Your task to perform on an android device: open app "Grab" (install if not already installed) Image 0: 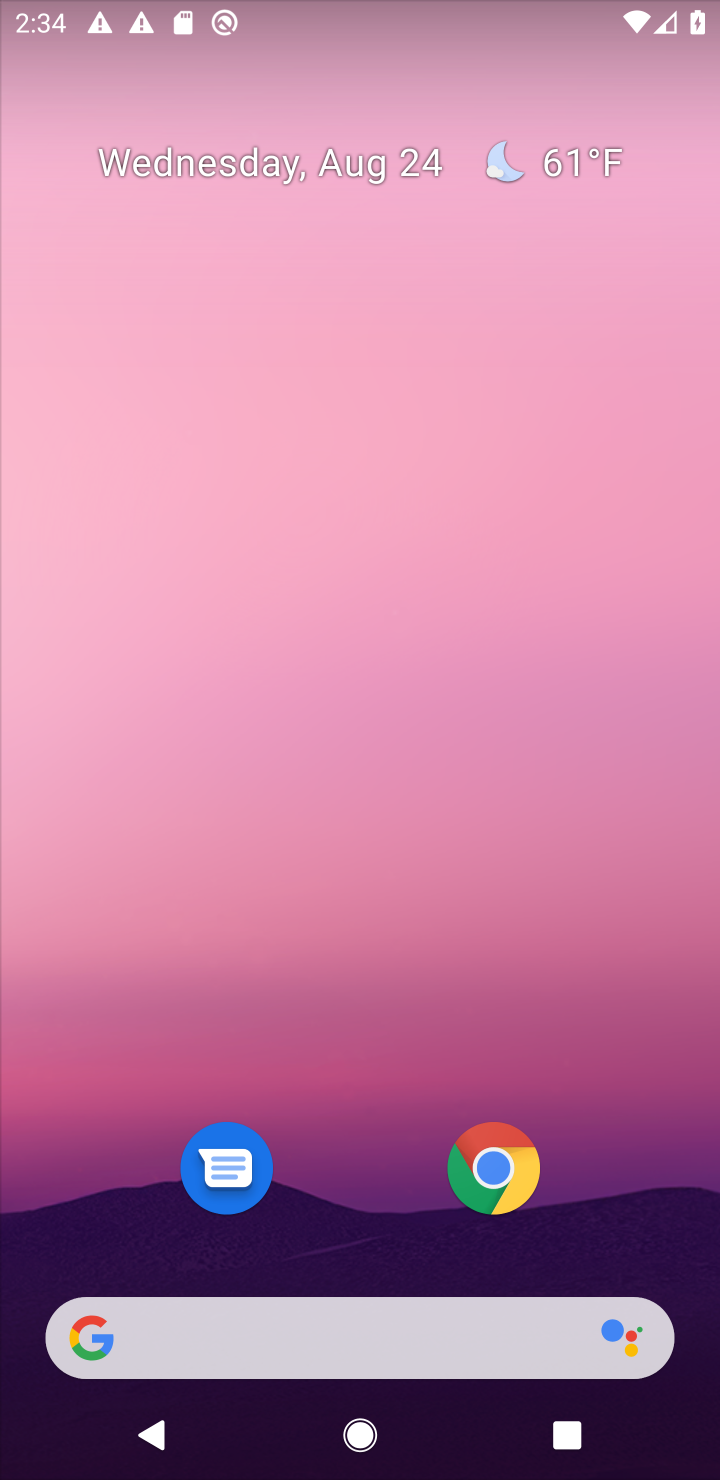
Step 0: drag from (652, 1056) to (594, 214)
Your task to perform on an android device: open app "Grab" (install if not already installed) Image 1: 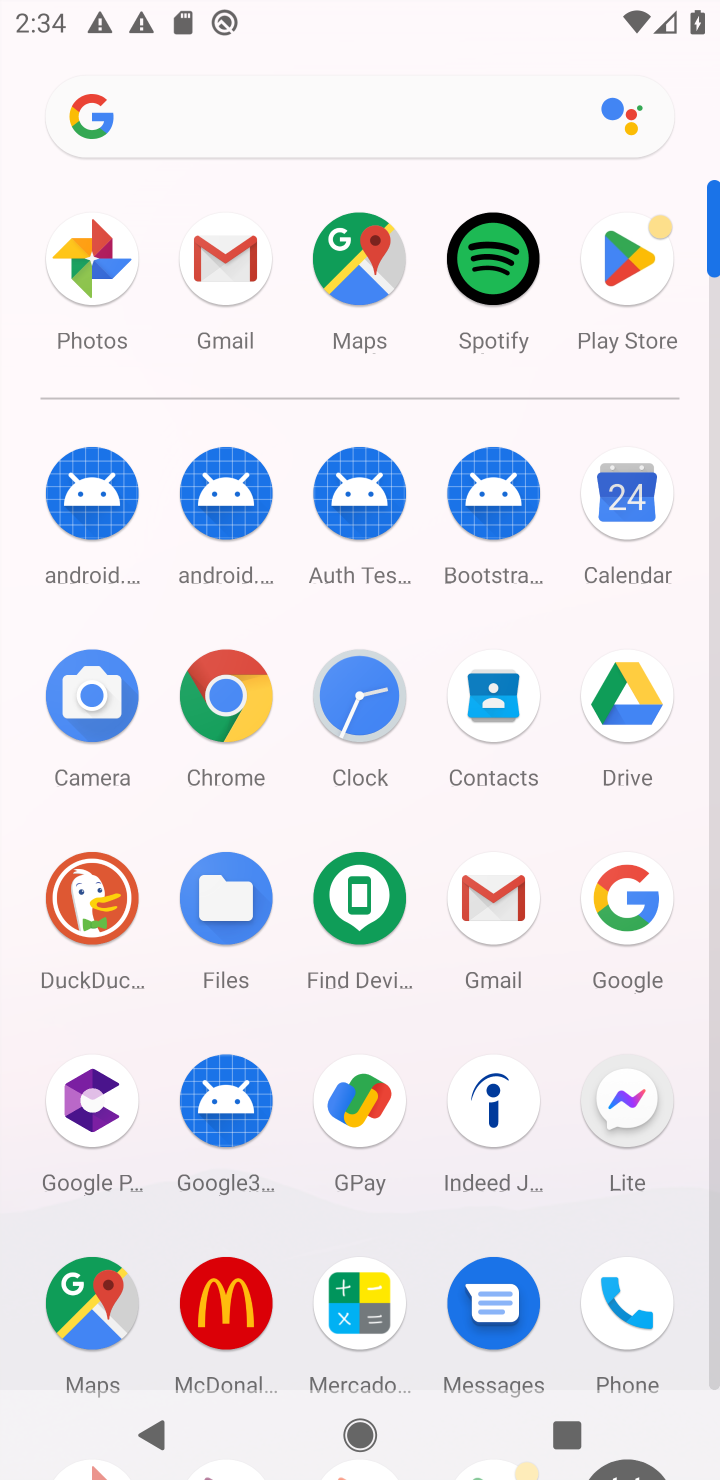
Step 1: click (717, 1325)
Your task to perform on an android device: open app "Grab" (install if not already installed) Image 2: 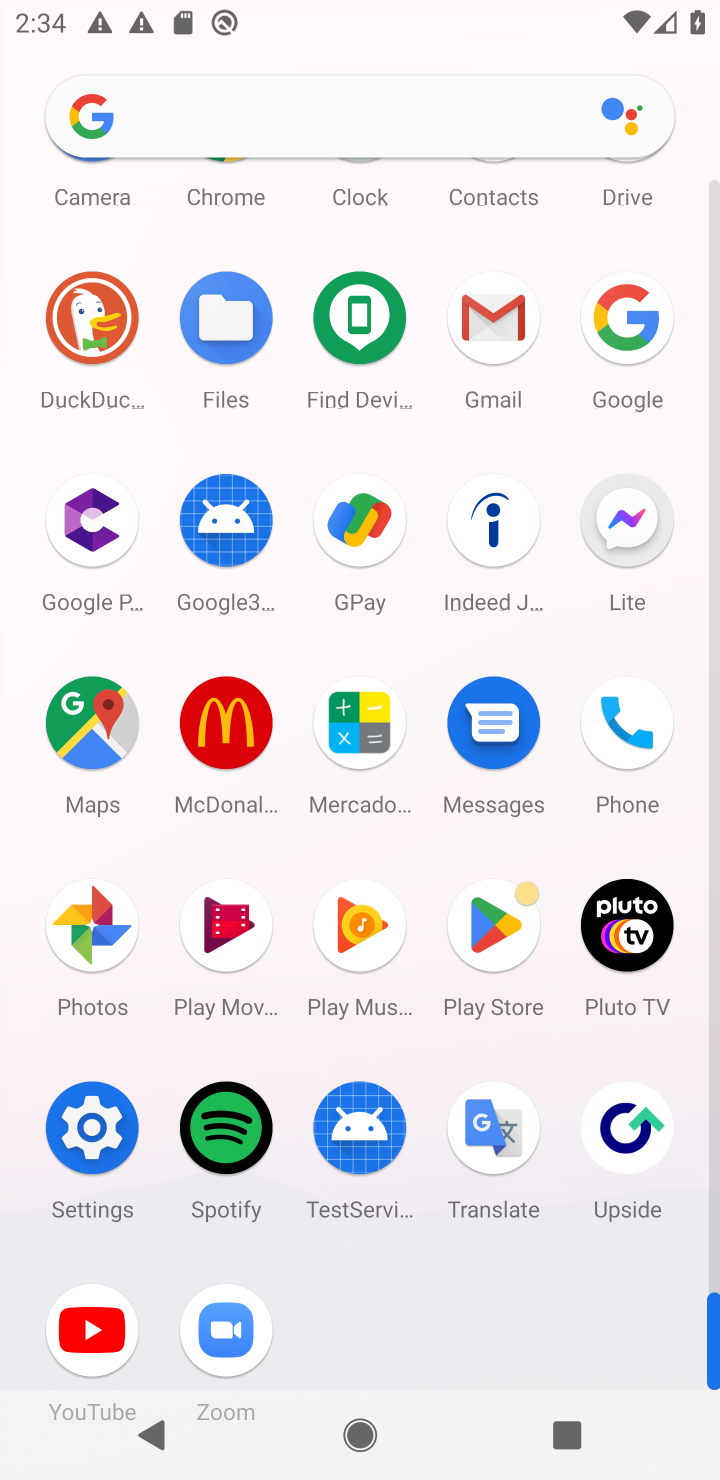
Step 2: click (500, 918)
Your task to perform on an android device: open app "Grab" (install if not already installed) Image 3: 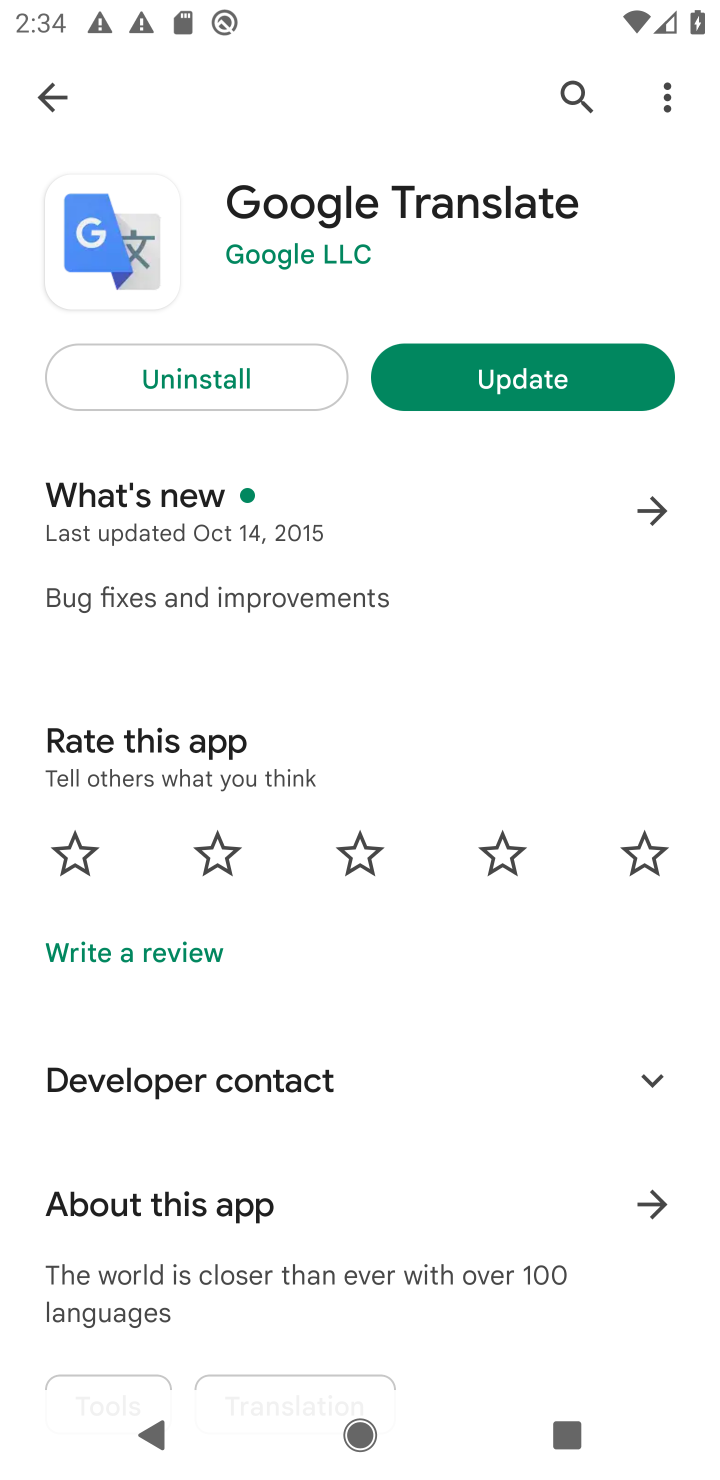
Step 3: click (570, 93)
Your task to perform on an android device: open app "Grab" (install if not already installed) Image 4: 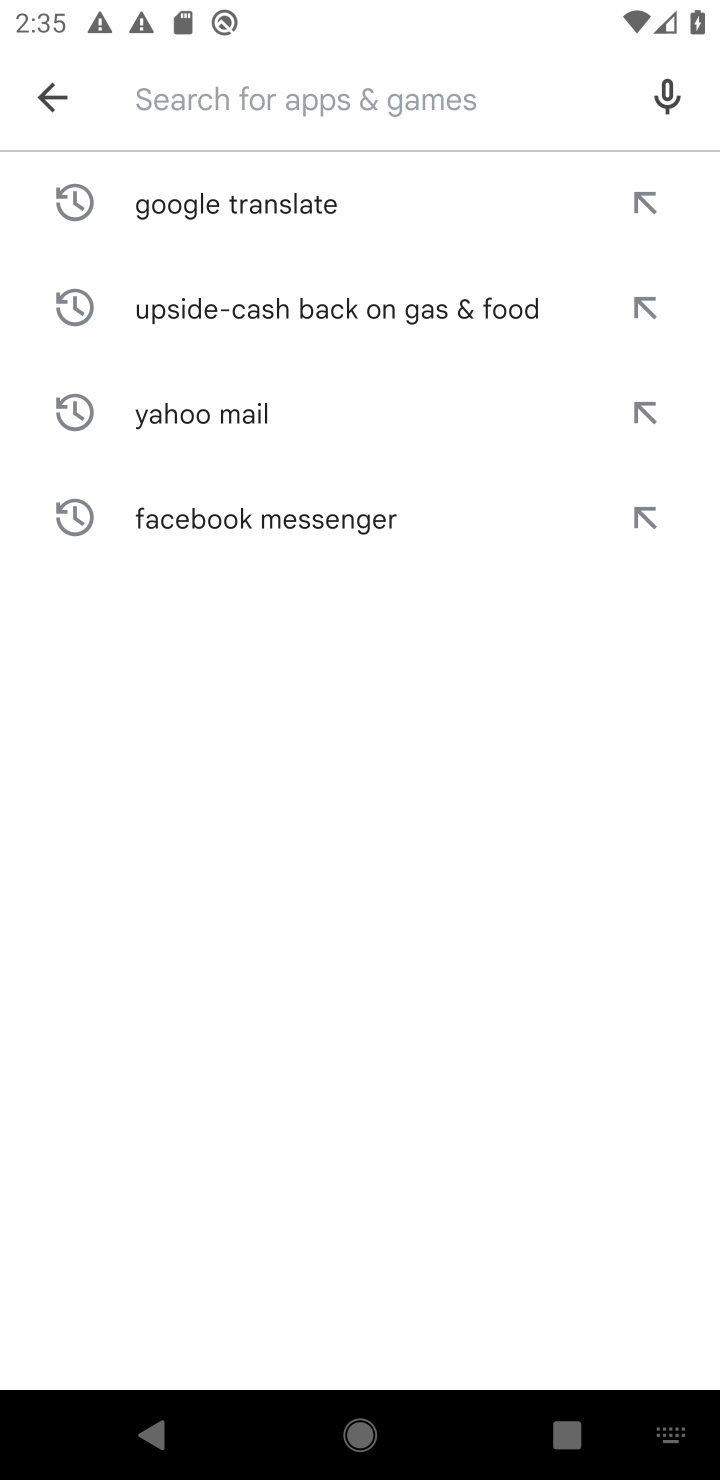
Step 4: type "Grab"
Your task to perform on an android device: open app "Grab" (install if not already installed) Image 5: 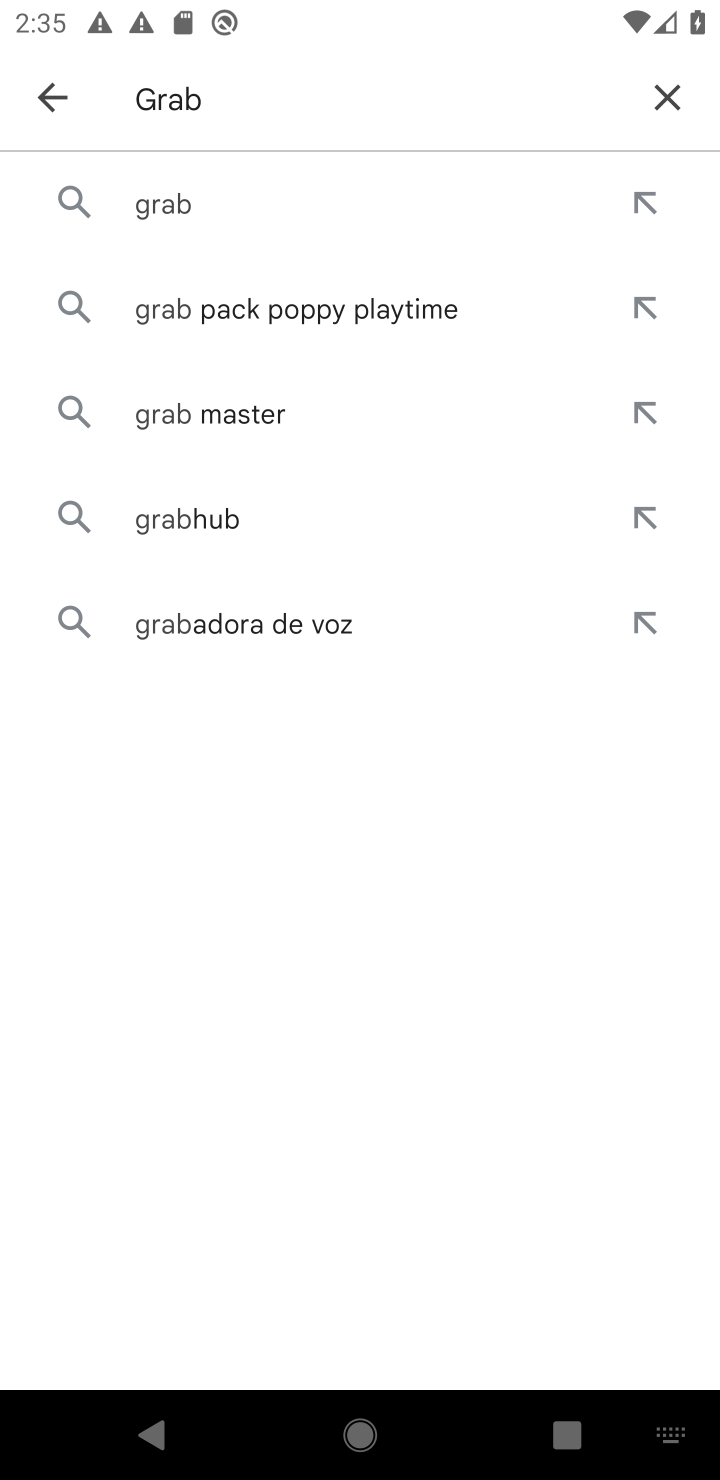
Step 5: click (171, 188)
Your task to perform on an android device: open app "Grab" (install if not already installed) Image 6: 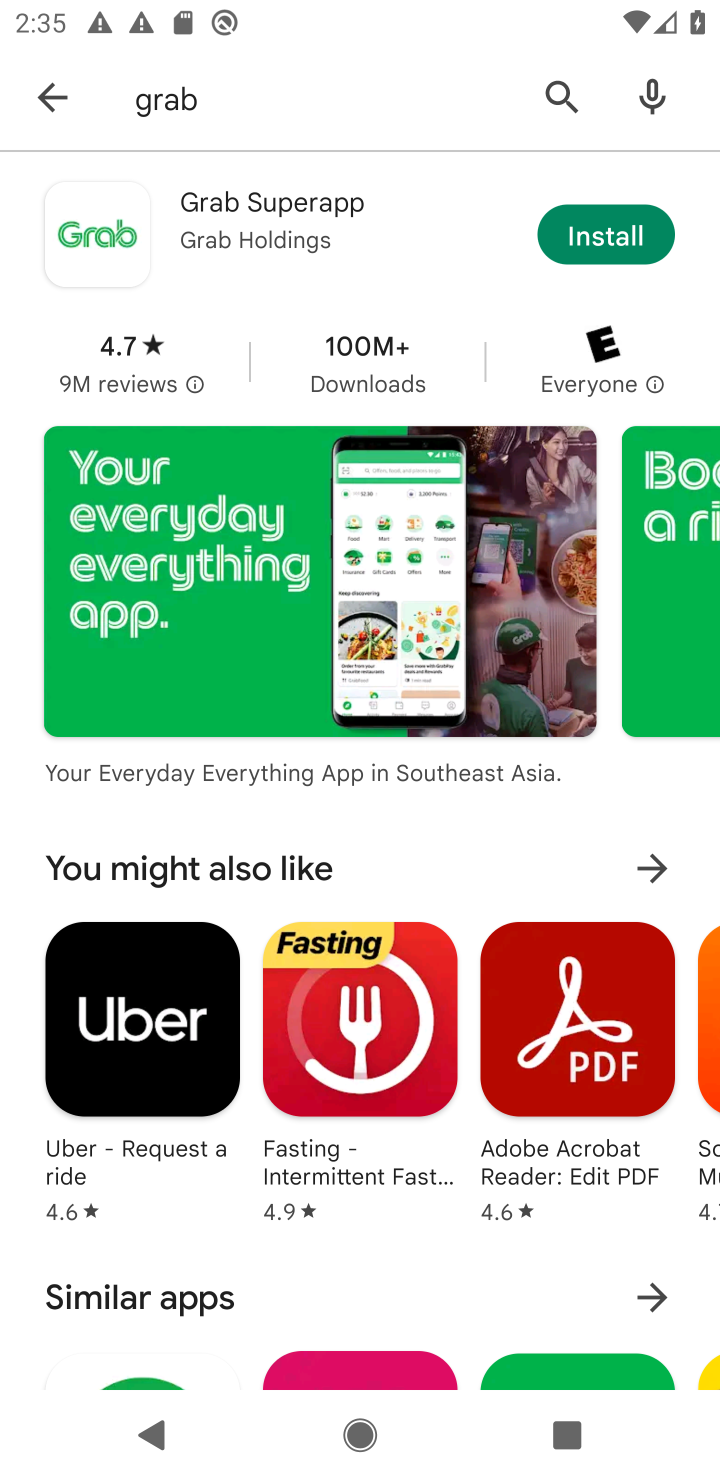
Step 6: click (232, 197)
Your task to perform on an android device: open app "Grab" (install if not already installed) Image 7: 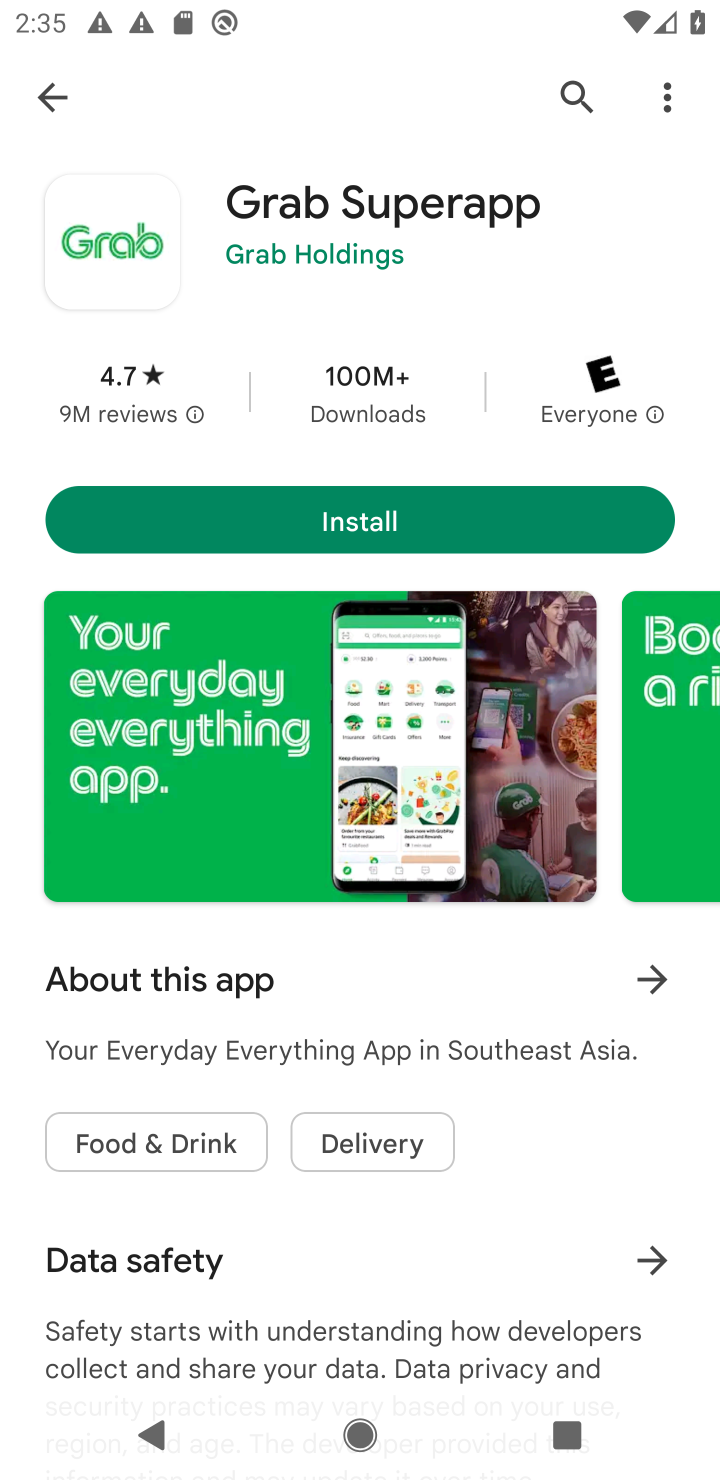
Step 7: click (348, 513)
Your task to perform on an android device: open app "Grab" (install if not already installed) Image 8: 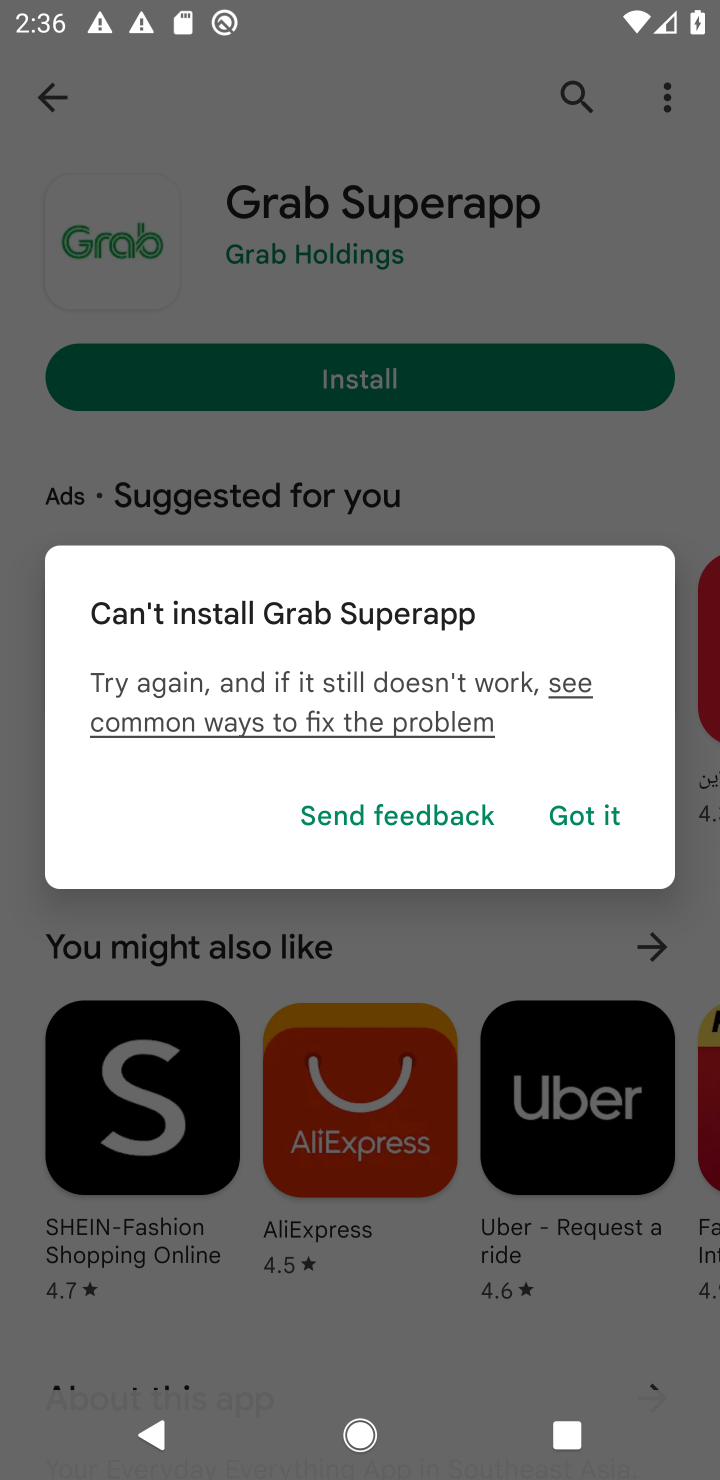
Step 8: click (600, 815)
Your task to perform on an android device: open app "Grab" (install if not already installed) Image 9: 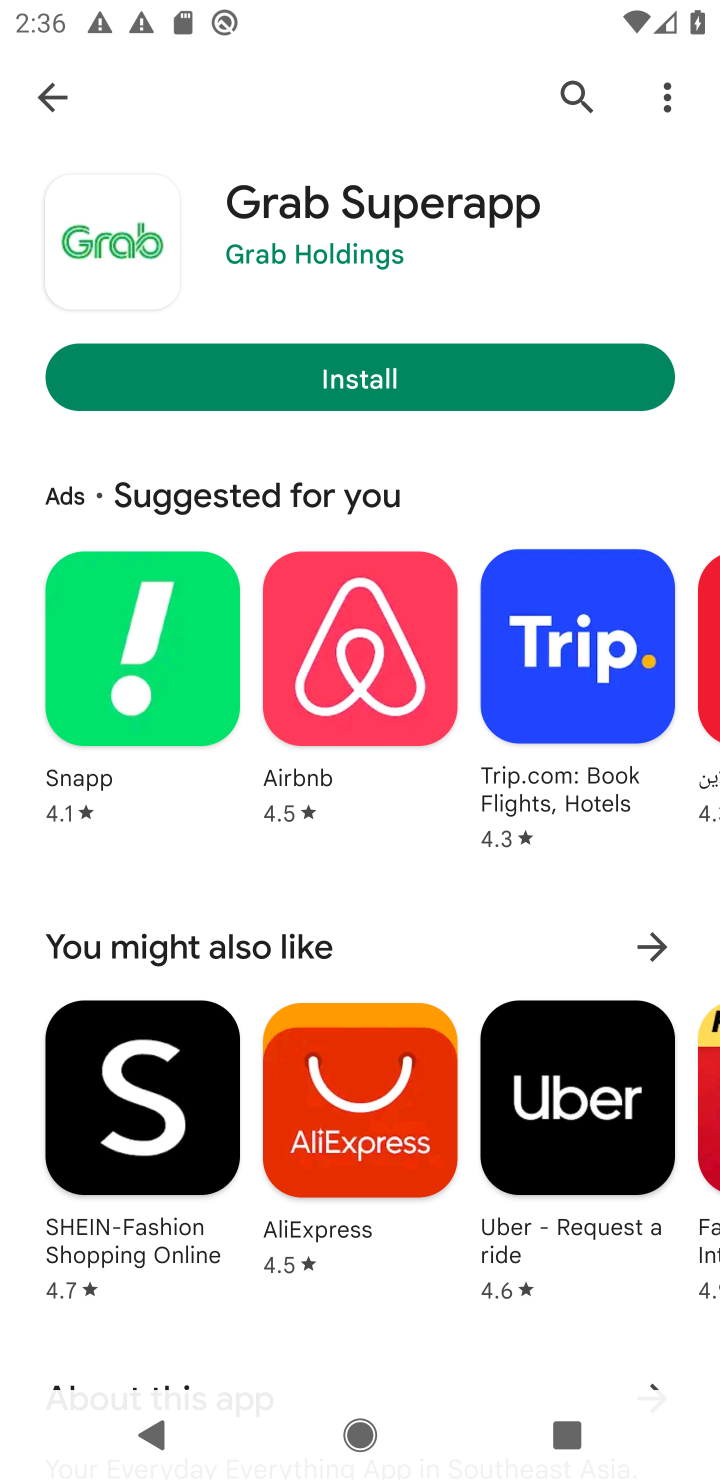
Step 9: task complete